Your task to perform on an android device: Open calendar and show me the first week of next month Image 0: 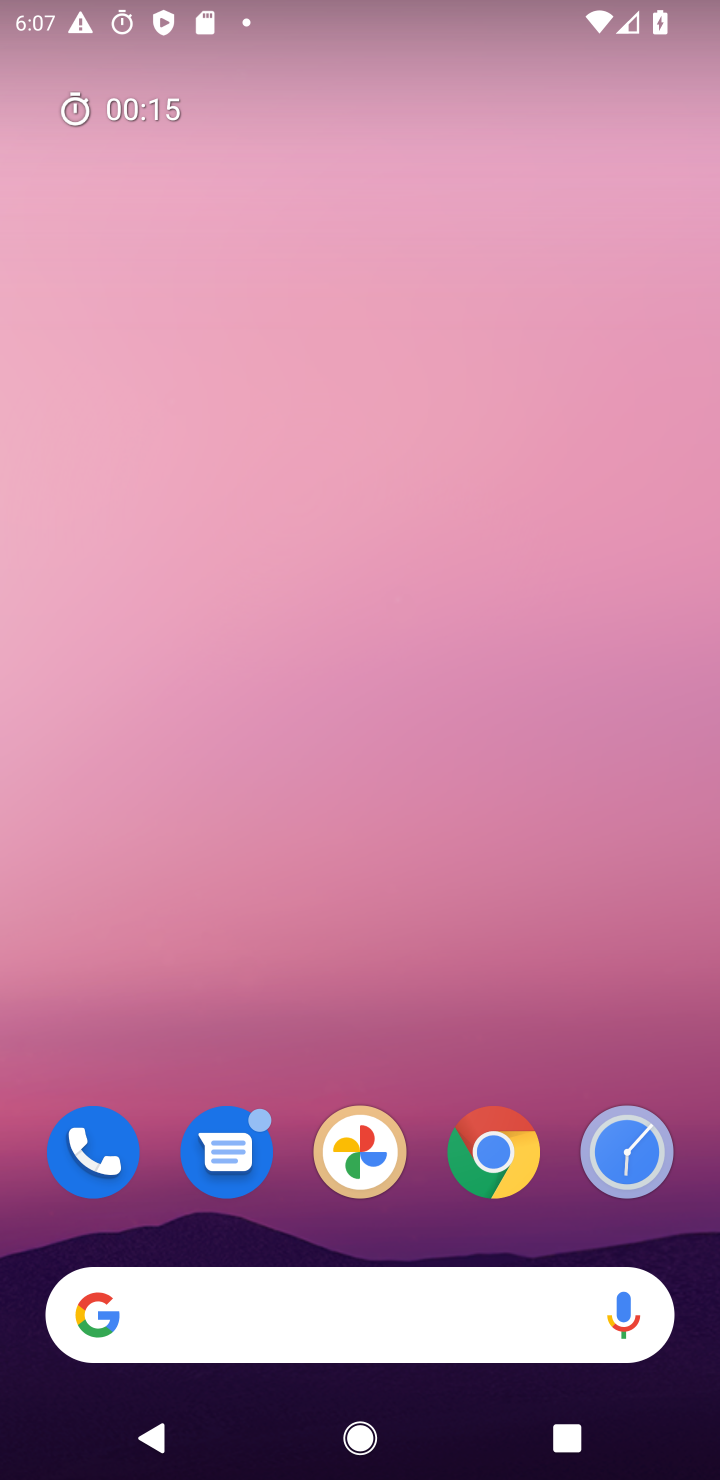
Step 0: press home button
Your task to perform on an android device: Open calendar and show me the first week of next month Image 1: 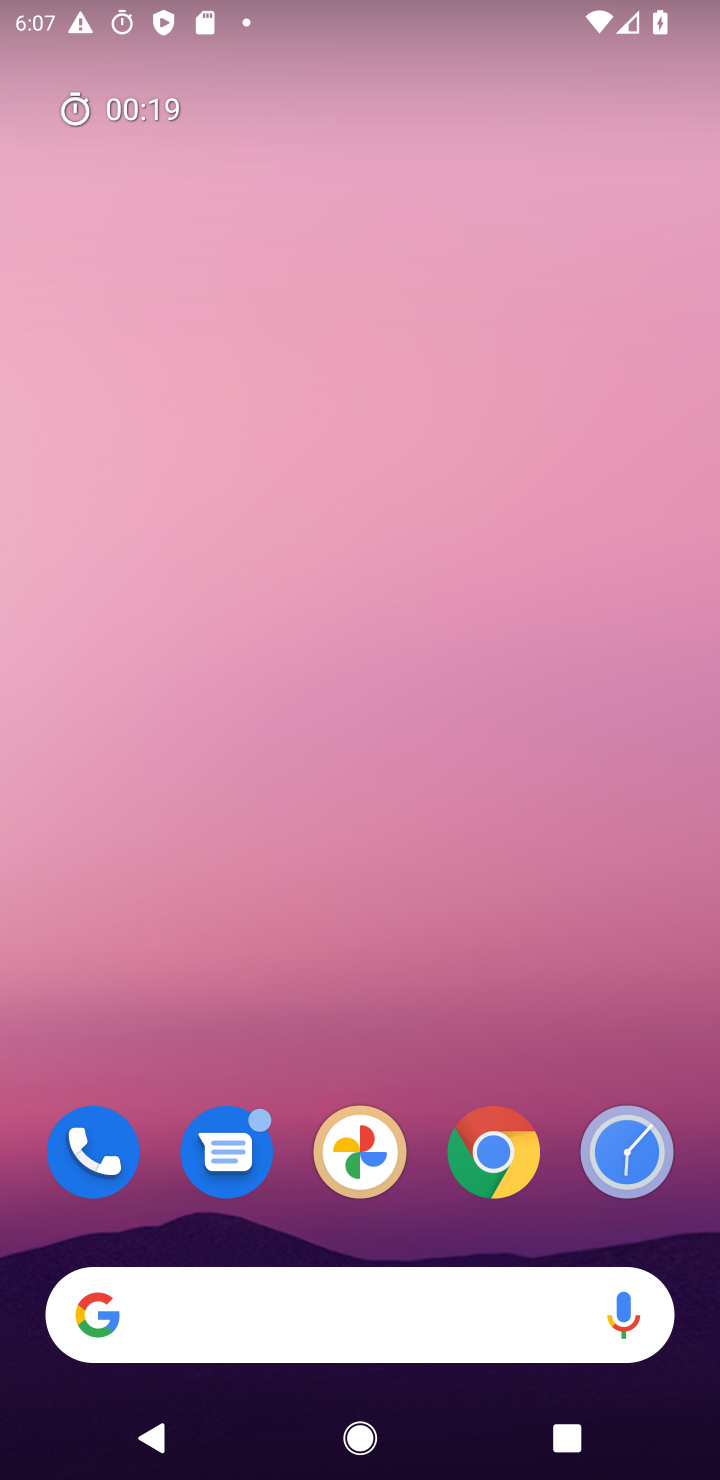
Step 1: drag from (425, 1167) to (557, 140)
Your task to perform on an android device: Open calendar and show me the first week of next month Image 2: 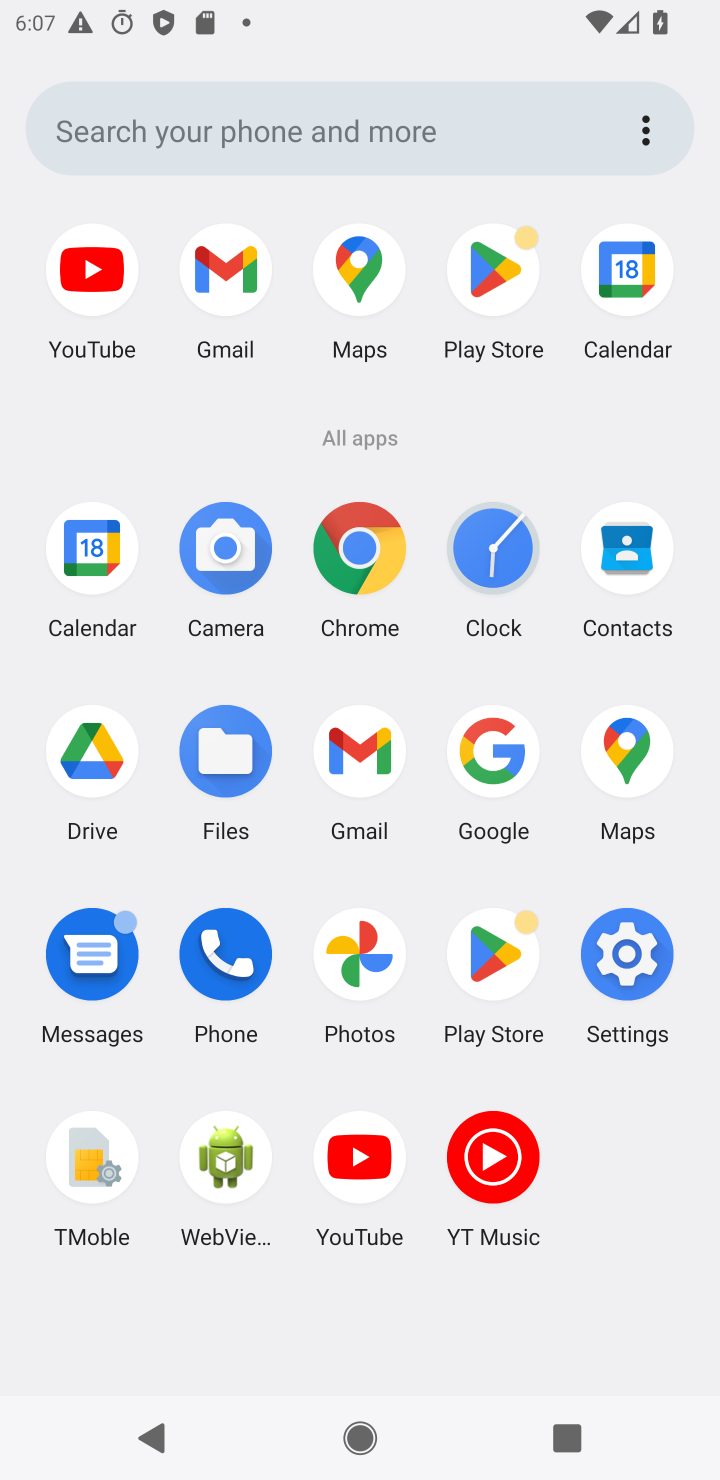
Step 2: click (84, 544)
Your task to perform on an android device: Open calendar and show me the first week of next month Image 3: 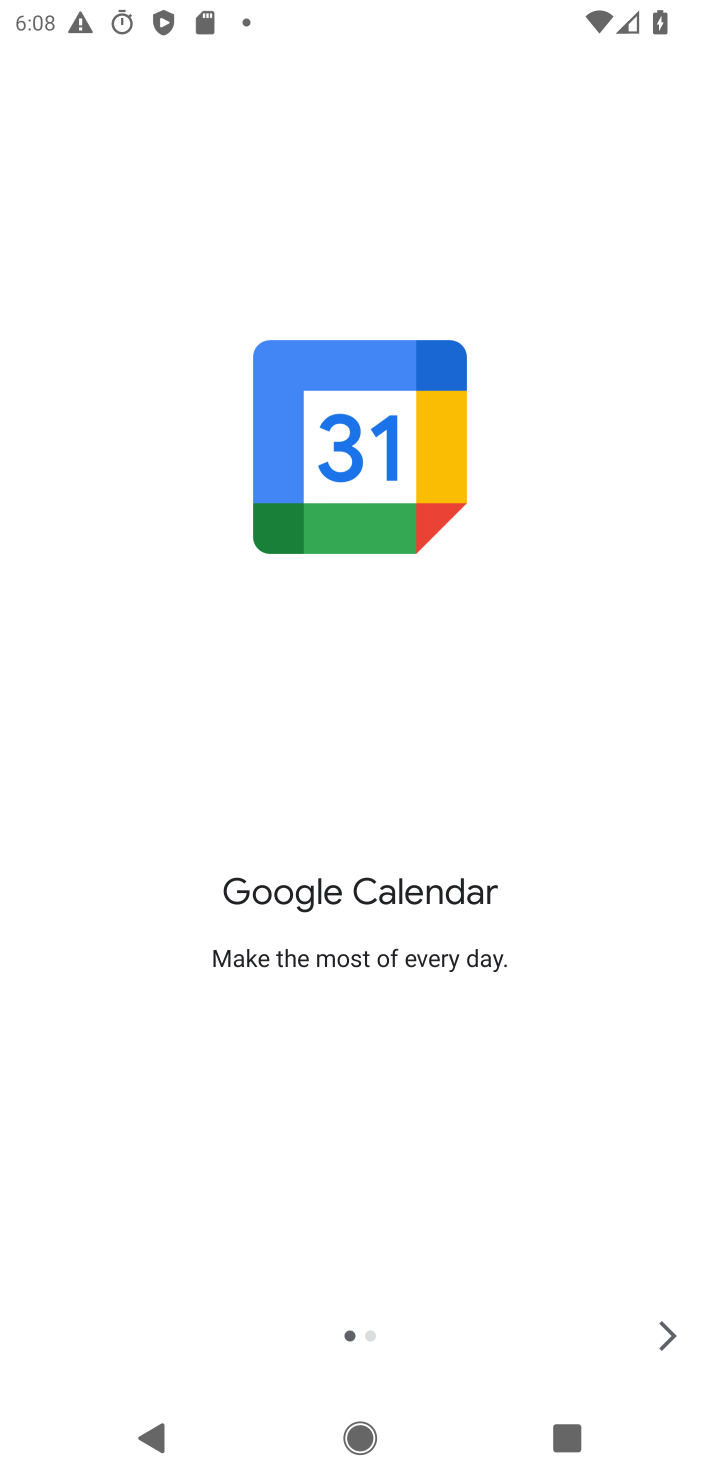
Step 3: click (665, 1333)
Your task to perform on an android device: Open calendar and show me the first week of next month Image 4: 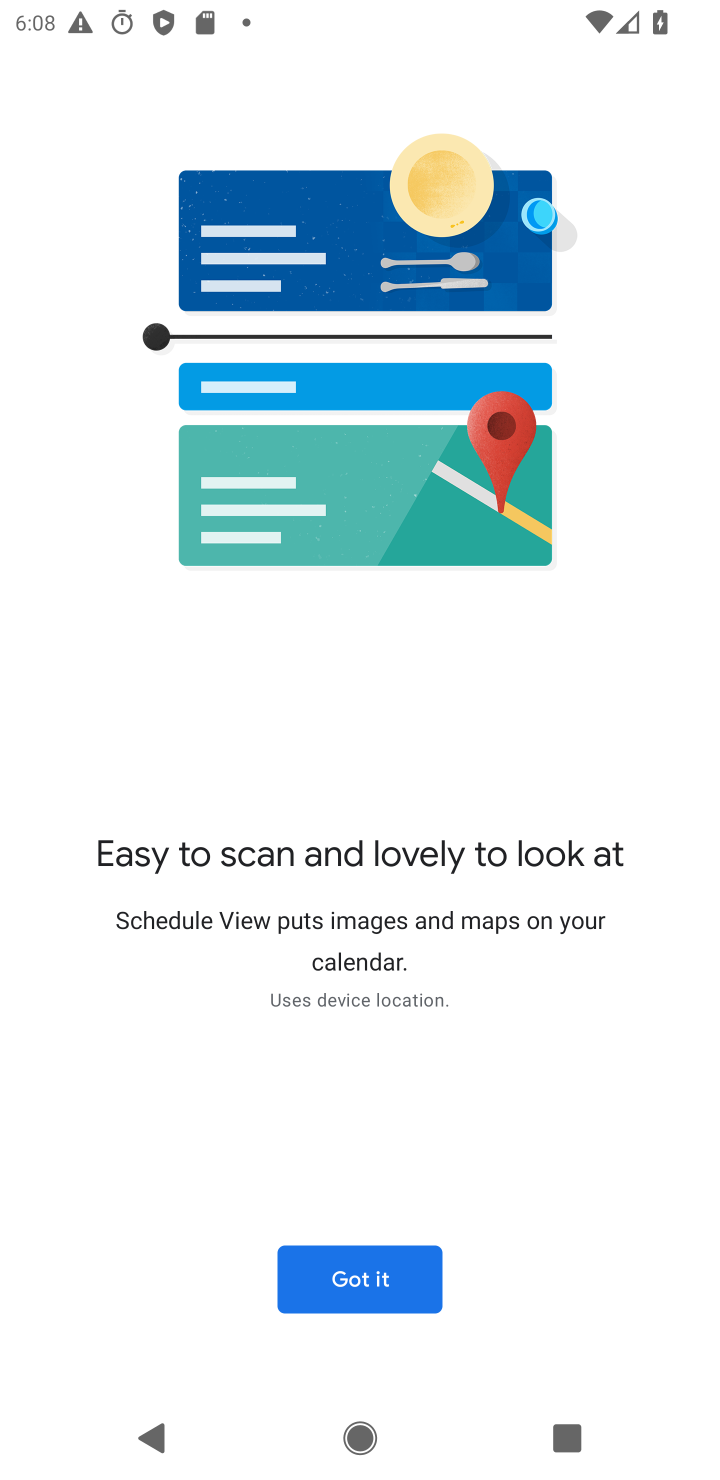
Step 4: click (385, 1270)
Your task to perform on an android device: Open calendar and show me the first week of next month Image 5: 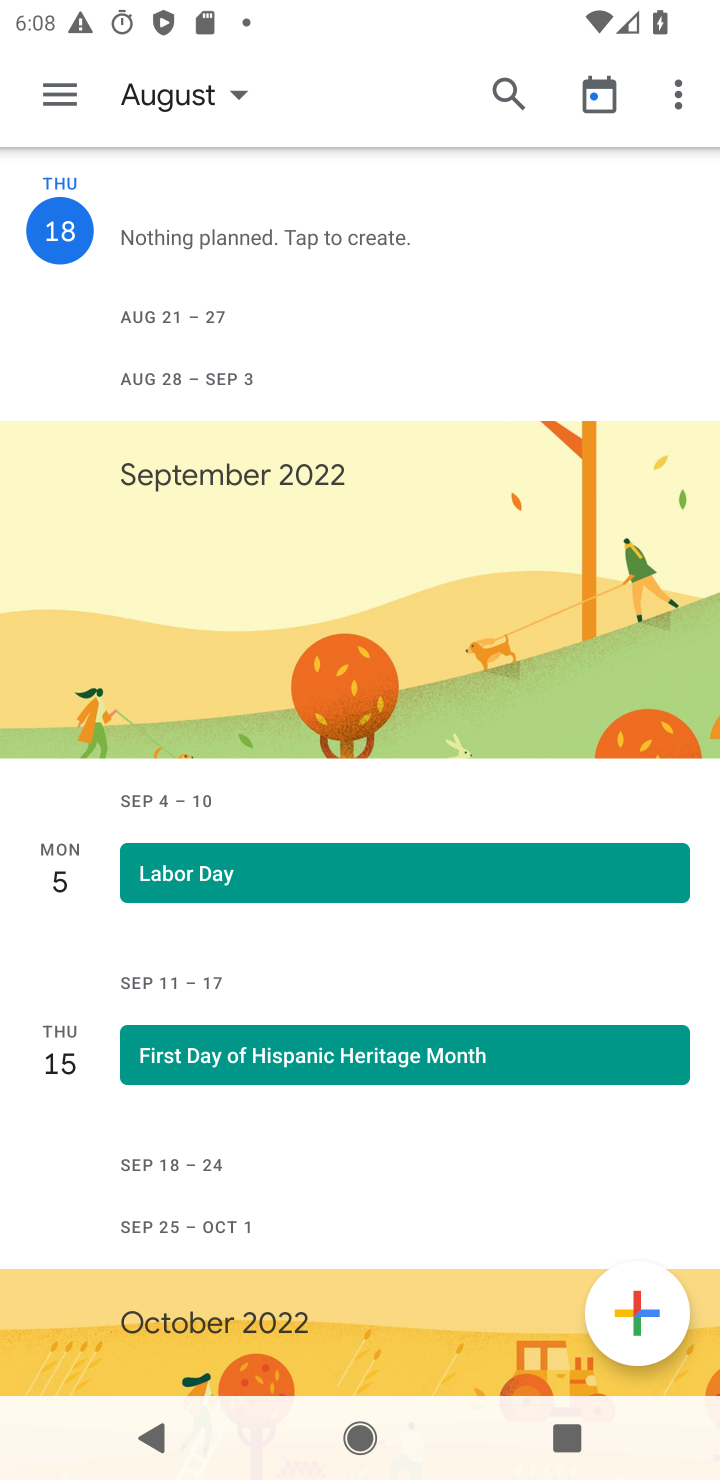
Step 5: click (220, 97)
Your task to perform on an android device: Open calendar and show me the first week of next month Image 6: 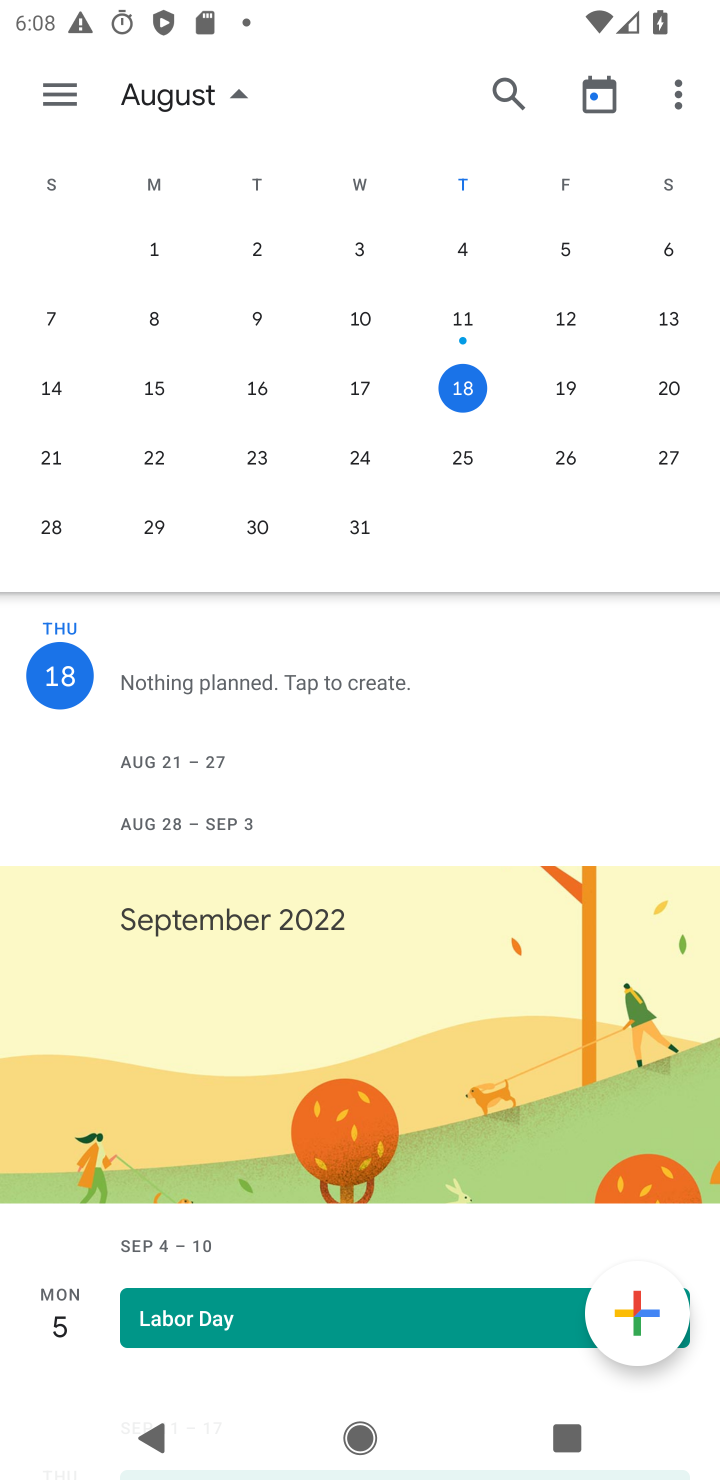
Step 6: drag from (613, 294) to (6, 253)
Your task to perform on an android device: Open calendar and show me the first week of next month Image 7: 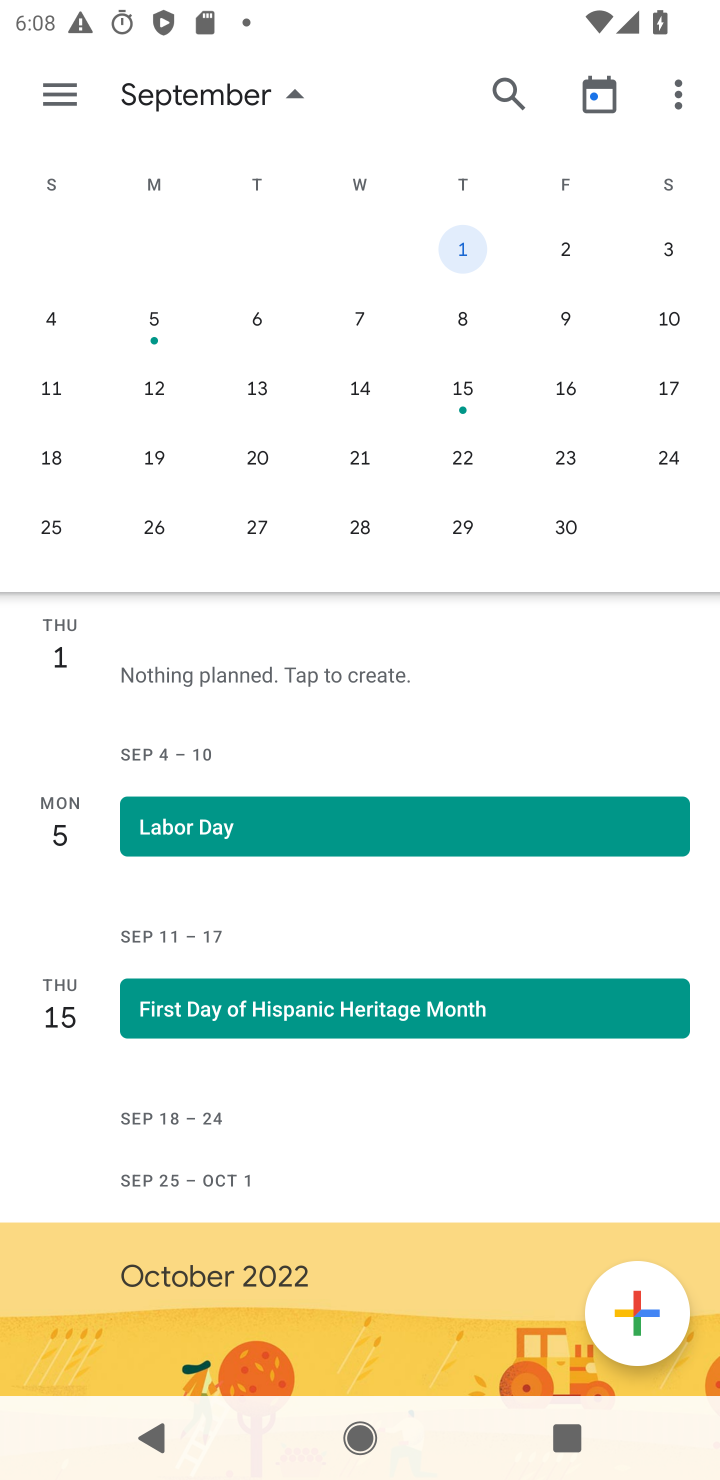
Step 7: click (355, 312)
Your task to perform on an android device: Open calendar and show me the first week of next month Image 8: 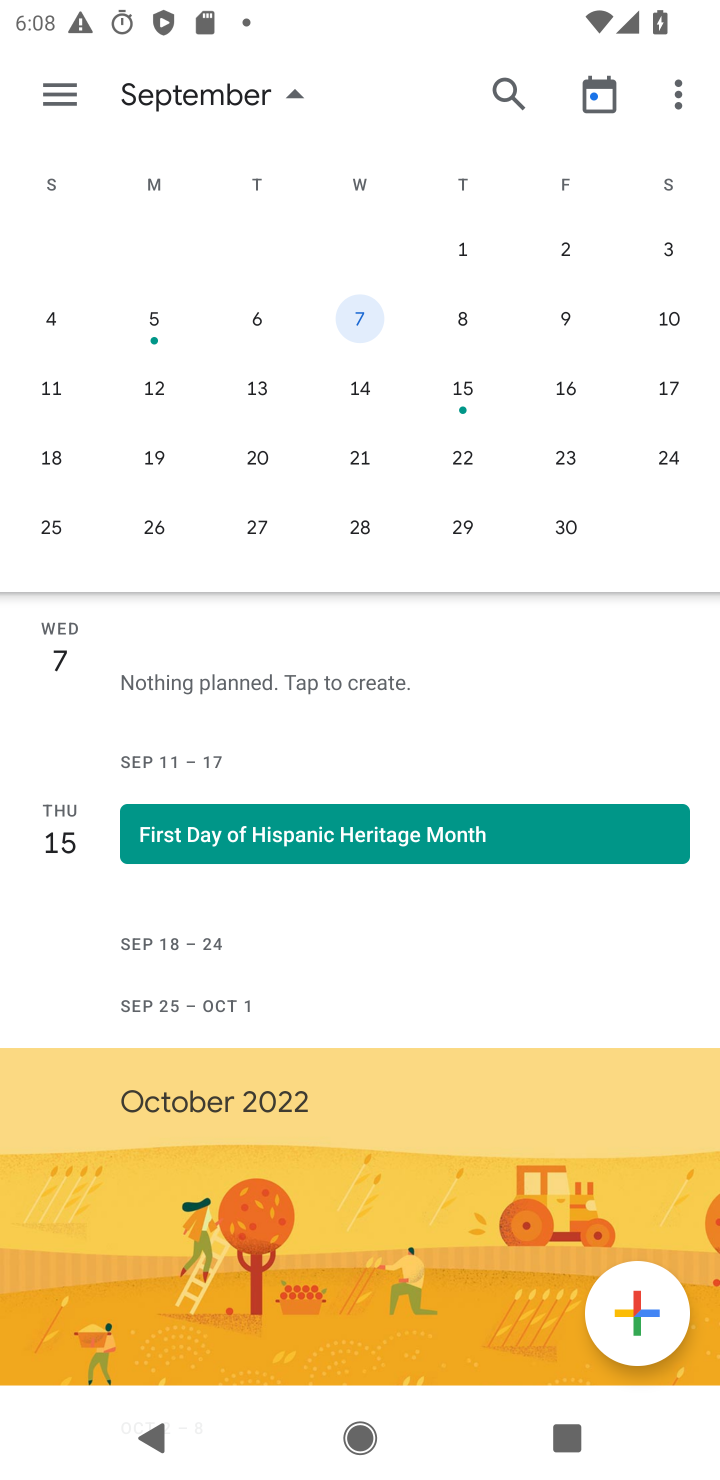
Step 8: task complete